Your task to perform on an android device: Open Yahoo.com Image 0: 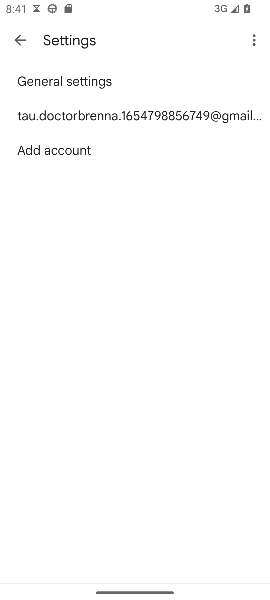
Step 0: press home button
Your task to perform on an android device: Open Yahoo.com Image 1: 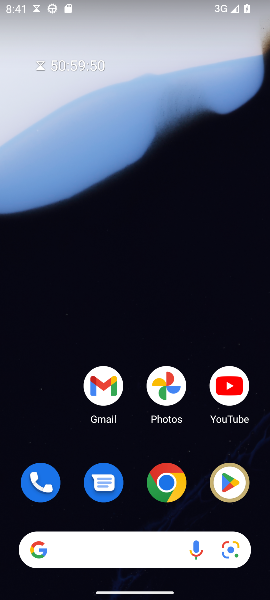
Step 1: drag from (135, 382) to (7, 85)
Your task to perform on an android device: Open Yahoo.com Image 2: 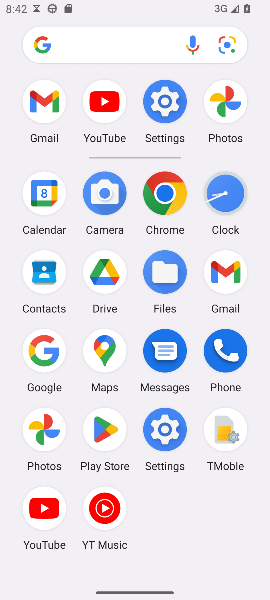
Step 2: click (169, 195)
Your task to perform on an android device: Open Yahoo.com Image 3: 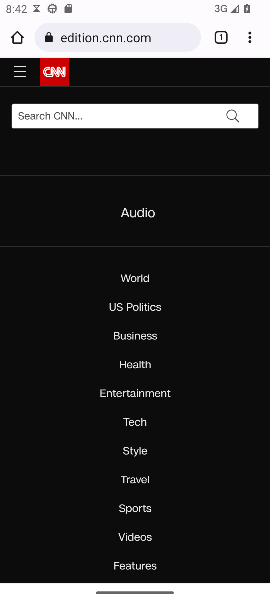
Step 3: click (163, 45)
Your task to perform on an android device: Open Yahoo.com Image 4: 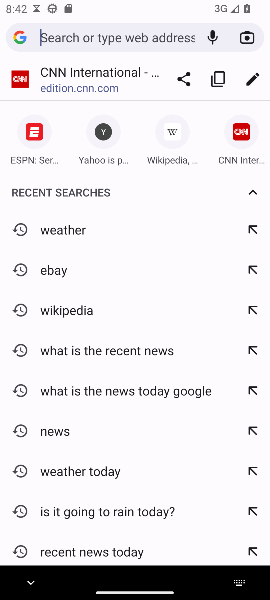
Step 4: type " Yahoo.com"
Your task to perform on an android device: Open Yahoo.com Image 5: 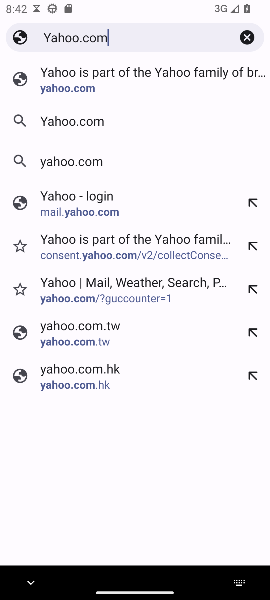
Step 5: click (72, 82)
Your task to perform on an android device: Open Yahoo.com Image 6: 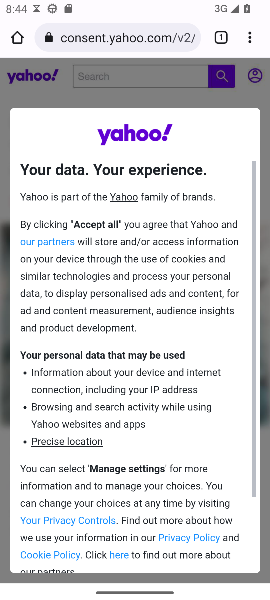
Step 6: task complete